Your task to perform on an android device: Show the shopping cart on amazon. Add jbl flip 4 to the cart on amazon Image 0: 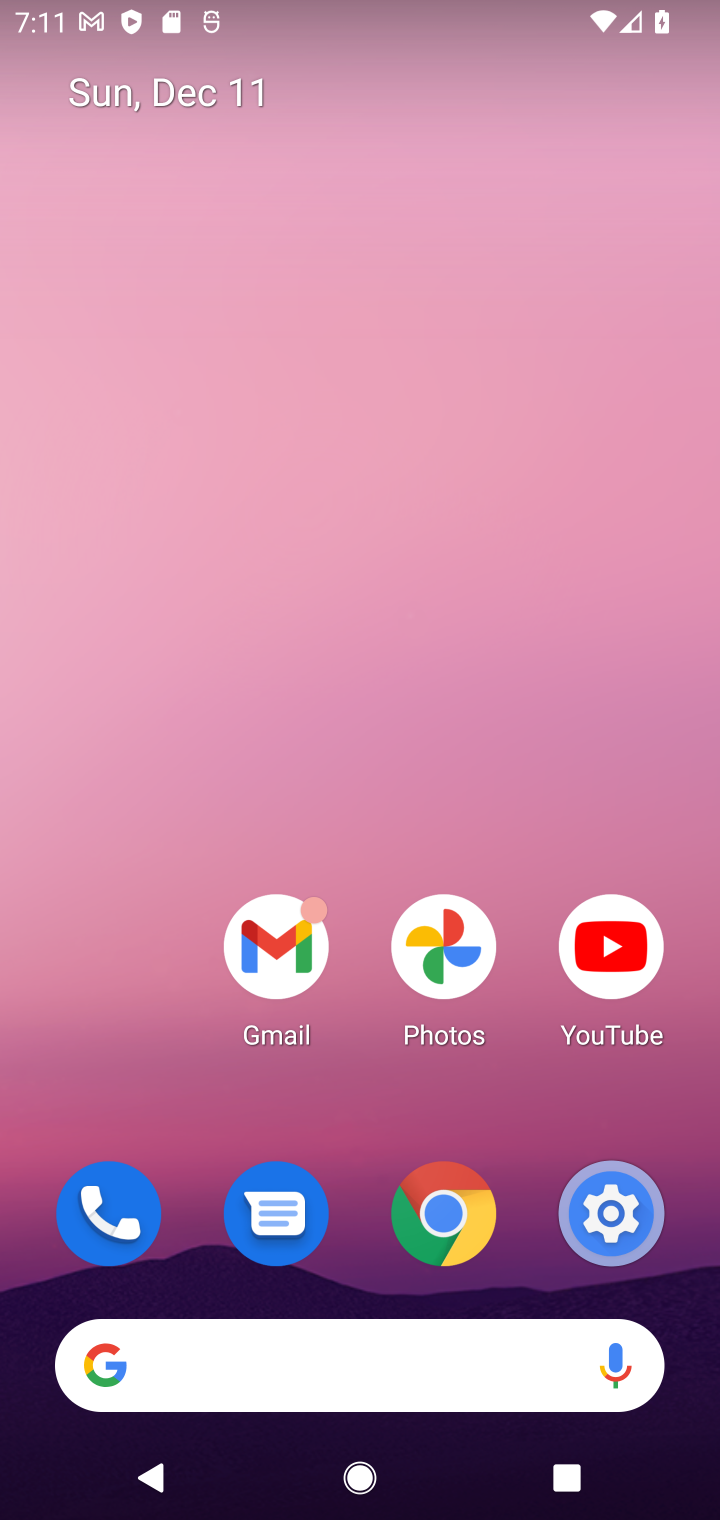
Step 0: click (268, 1357)
Your task to perform on an android device: Show the shopping cart on amazon. Add jbl flip 4 to the cart on amazon Image 1: 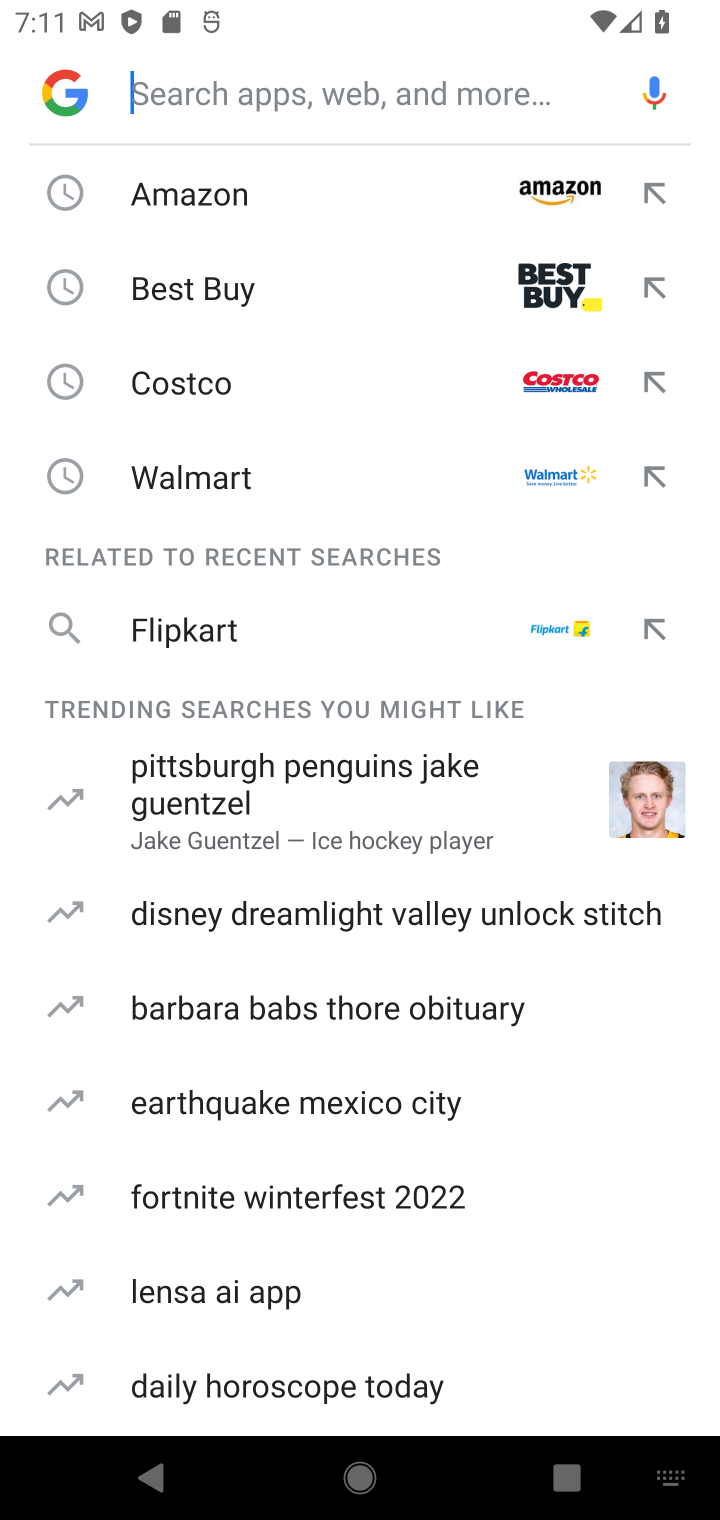
Step 1: type "jbl flip 4"
Your task to perform on an android device: Show the shopping cart on amazon. Add jbl flip 4 to the cart on amazon Image 2: 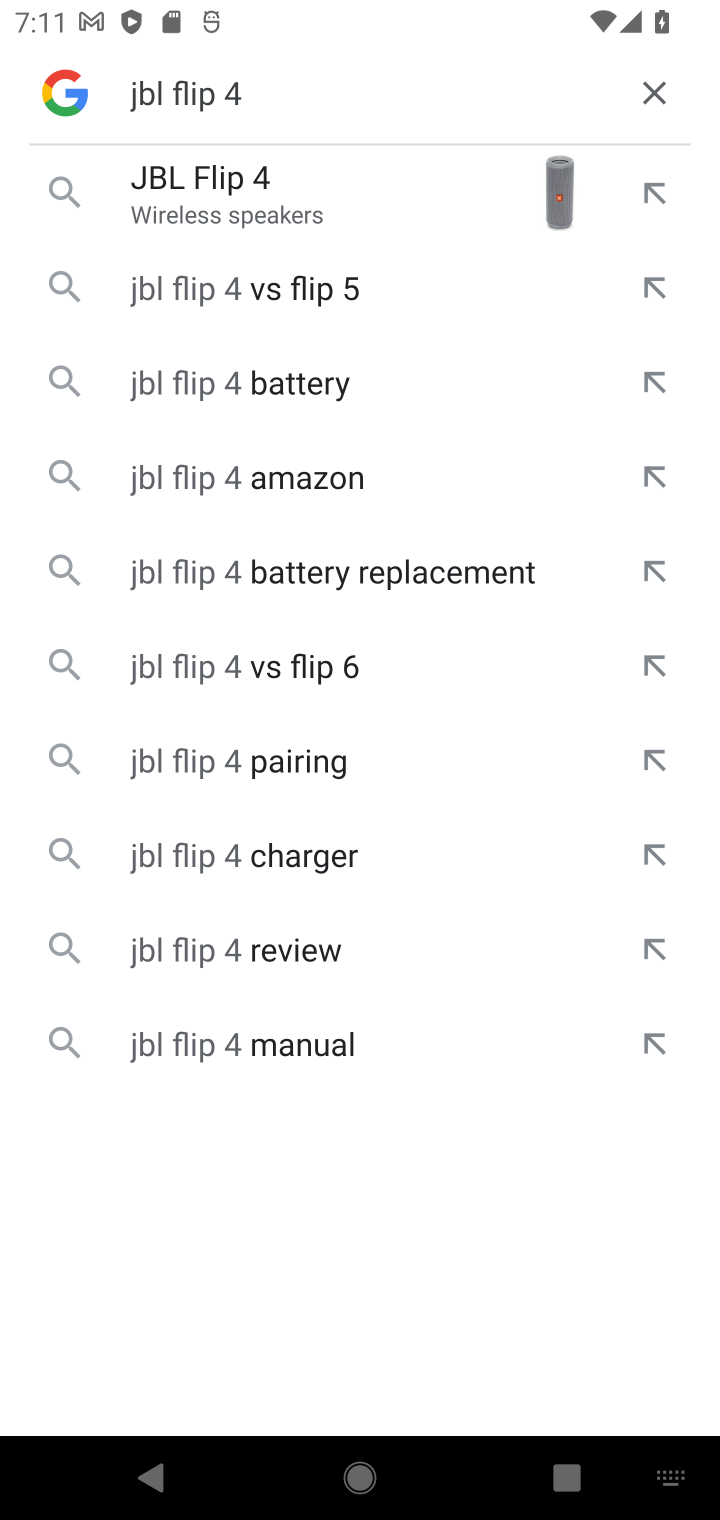
Step 2: press home button
Your task to perform on an android device: Show the shopping cart on amazon. Add jbl flip 4 to the cart on amazon Image 3: 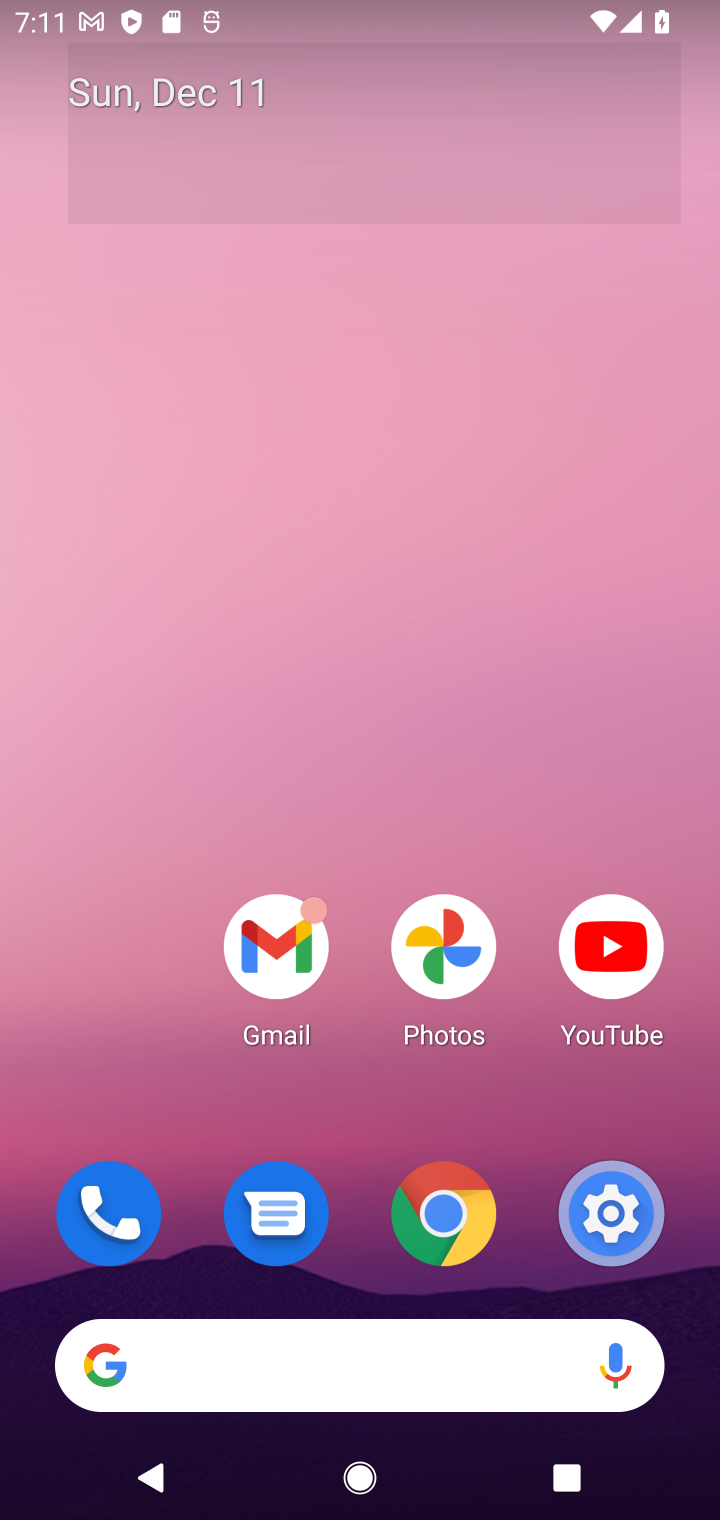
Step 3: click (310, 1346)
Your task to perform on an android device: Show the shopping cart on amazon. Add jbl flip 4 to the cart on amazon Image 4: 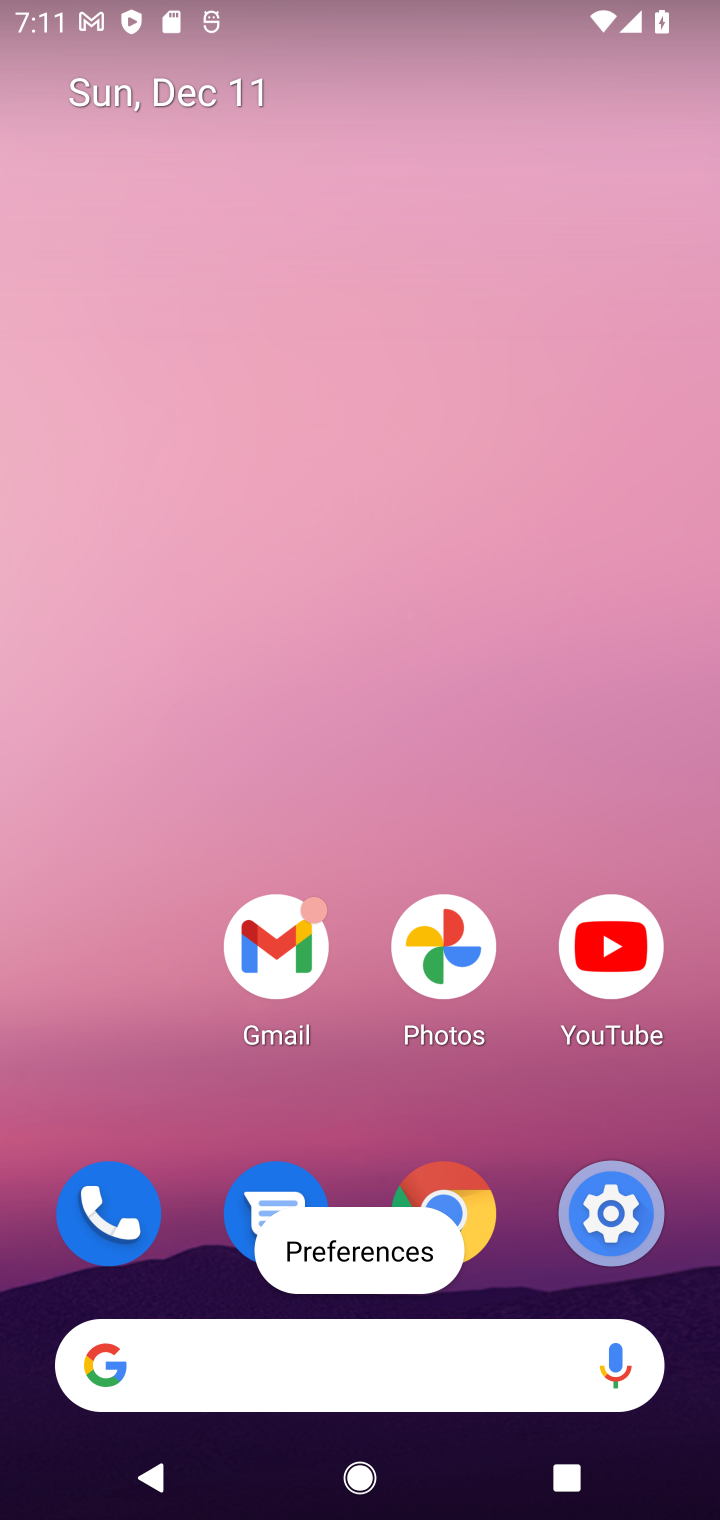
Step 4: click (455, 1358)
Your task to perform on an android device: Show the shopping cart on amazon. Add jbl flip 4 to the cart on amazon Image 5: 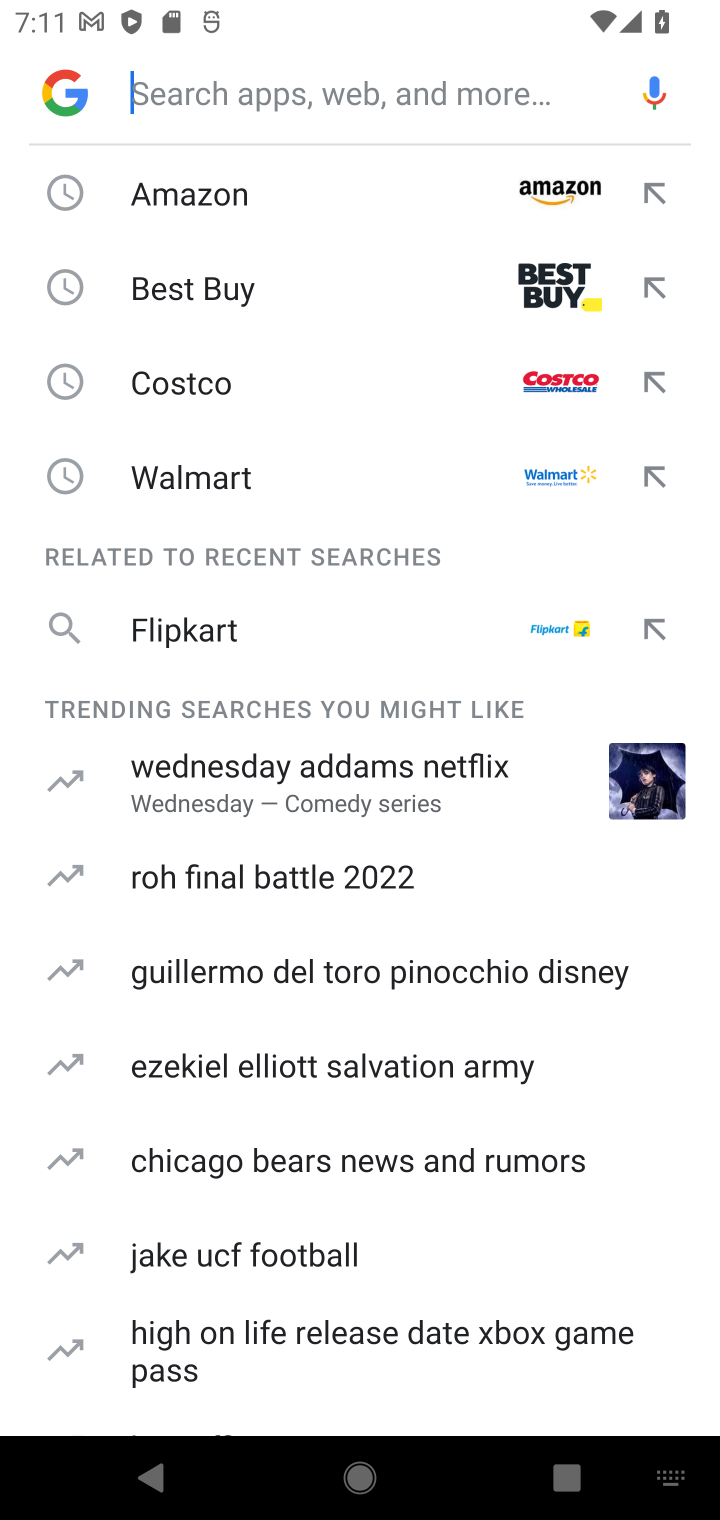
Step 5: click (296, 204)
Your task to perform on an android device: Show the shopping cart on amazon. Add jbl flip 4 to the cart on amazon Image 6: 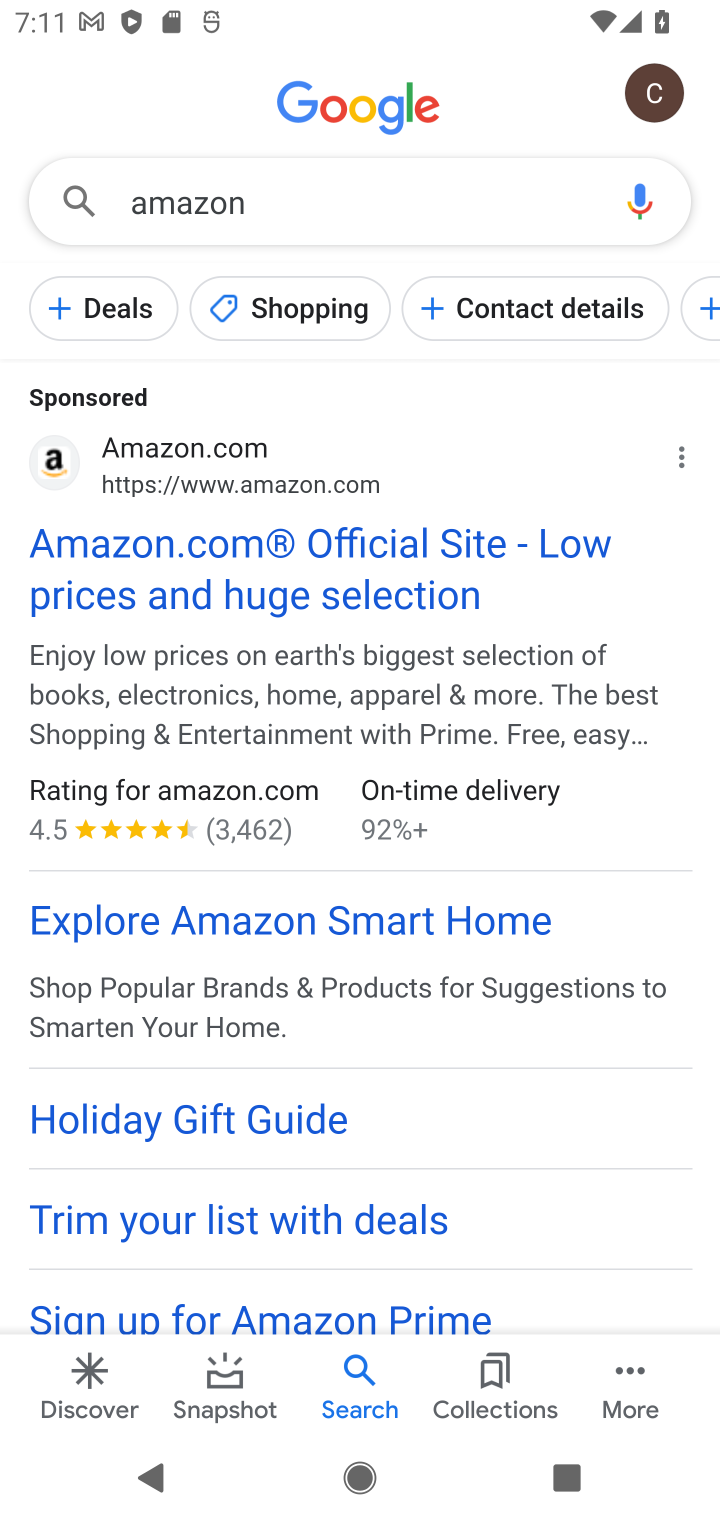
Step 6: click (235, 545)
Your task to perform on an android device: Show the shopping cart on amazon. Add jbl flip 4 to the cart on amazon Image 7: 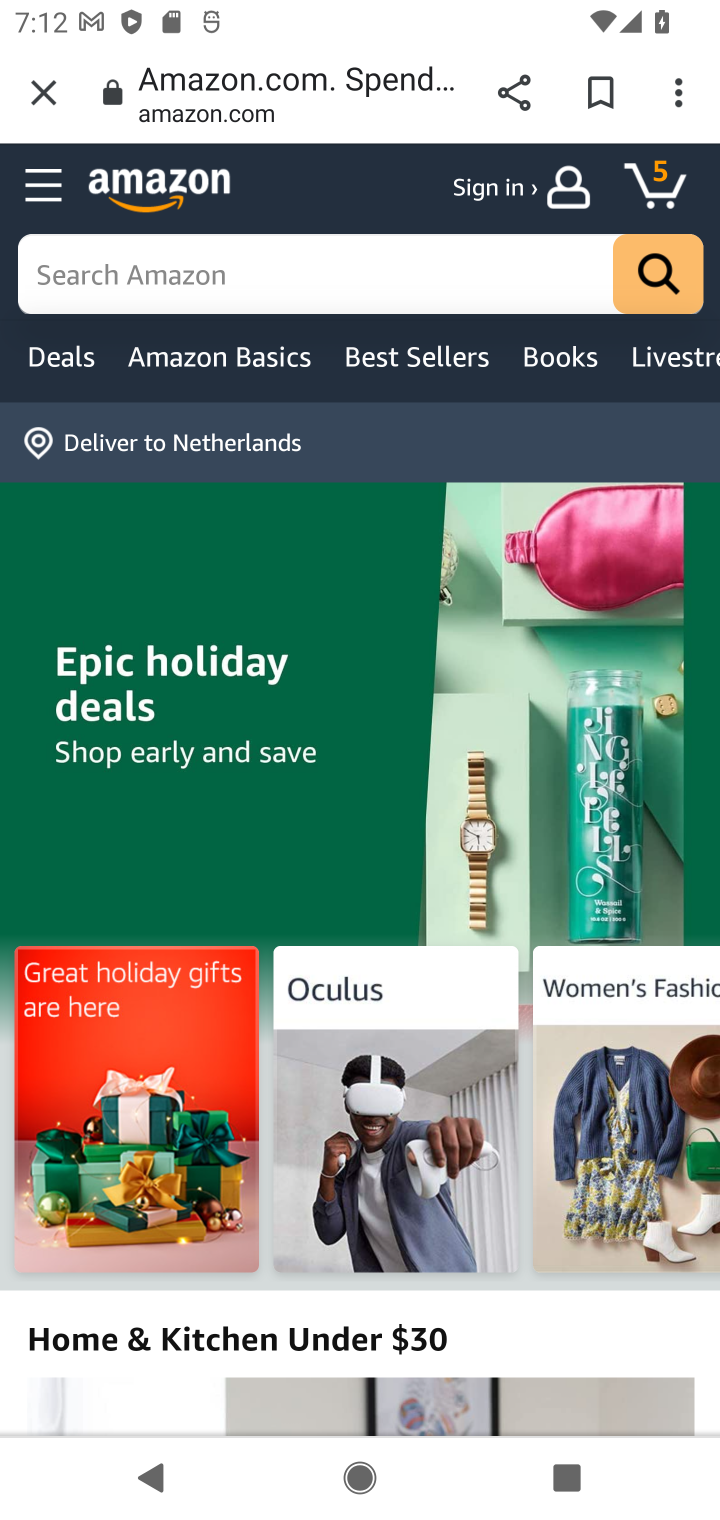
Step 7: click (375, 272)
Your task to perform on an android device: Show the shopping cart on amazon. Add jbl flip 4 to the cart on amazon Image 8: 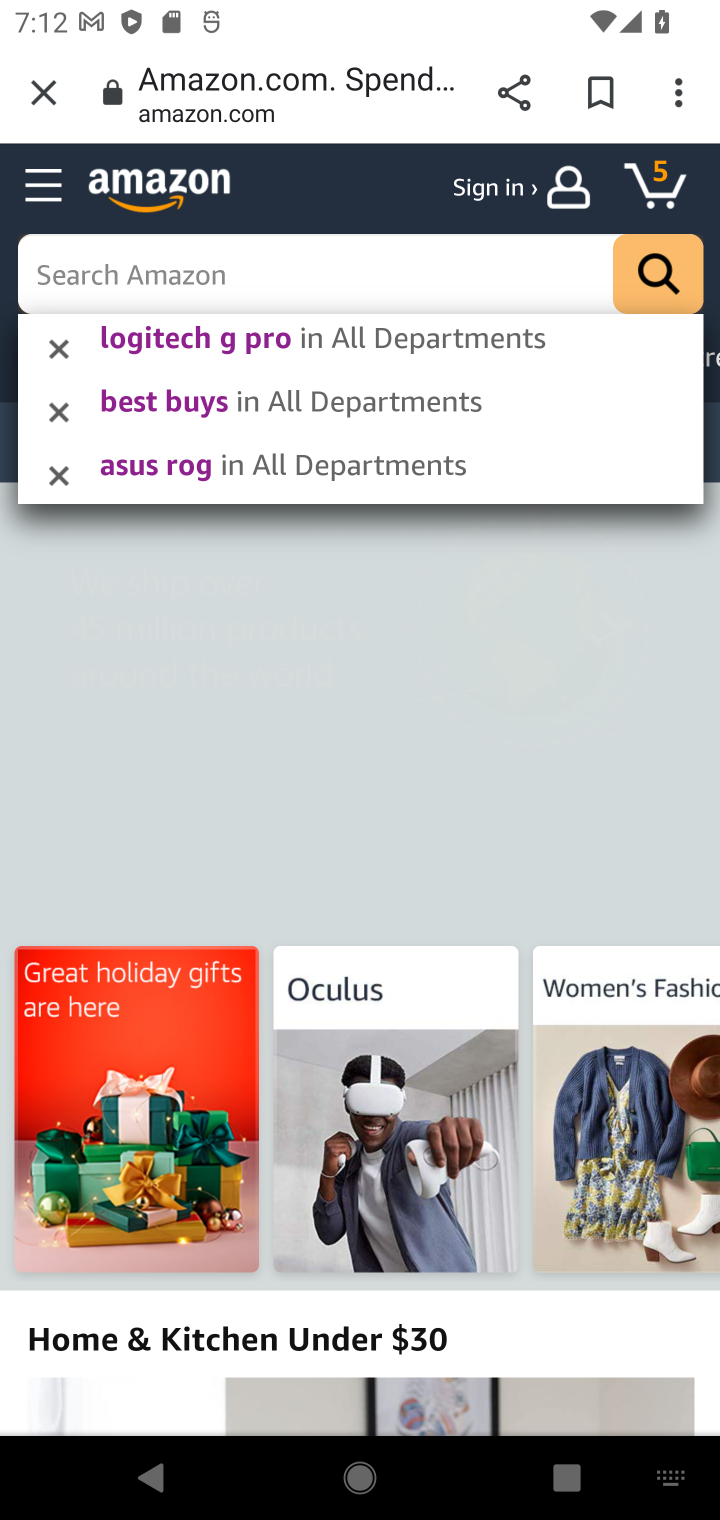
Step 8: type "jbl flip 4"
Your task to perform on an android device: Show the shopping cart on amazon. Add jbl flip 4 to the cart on amazon Image 9: 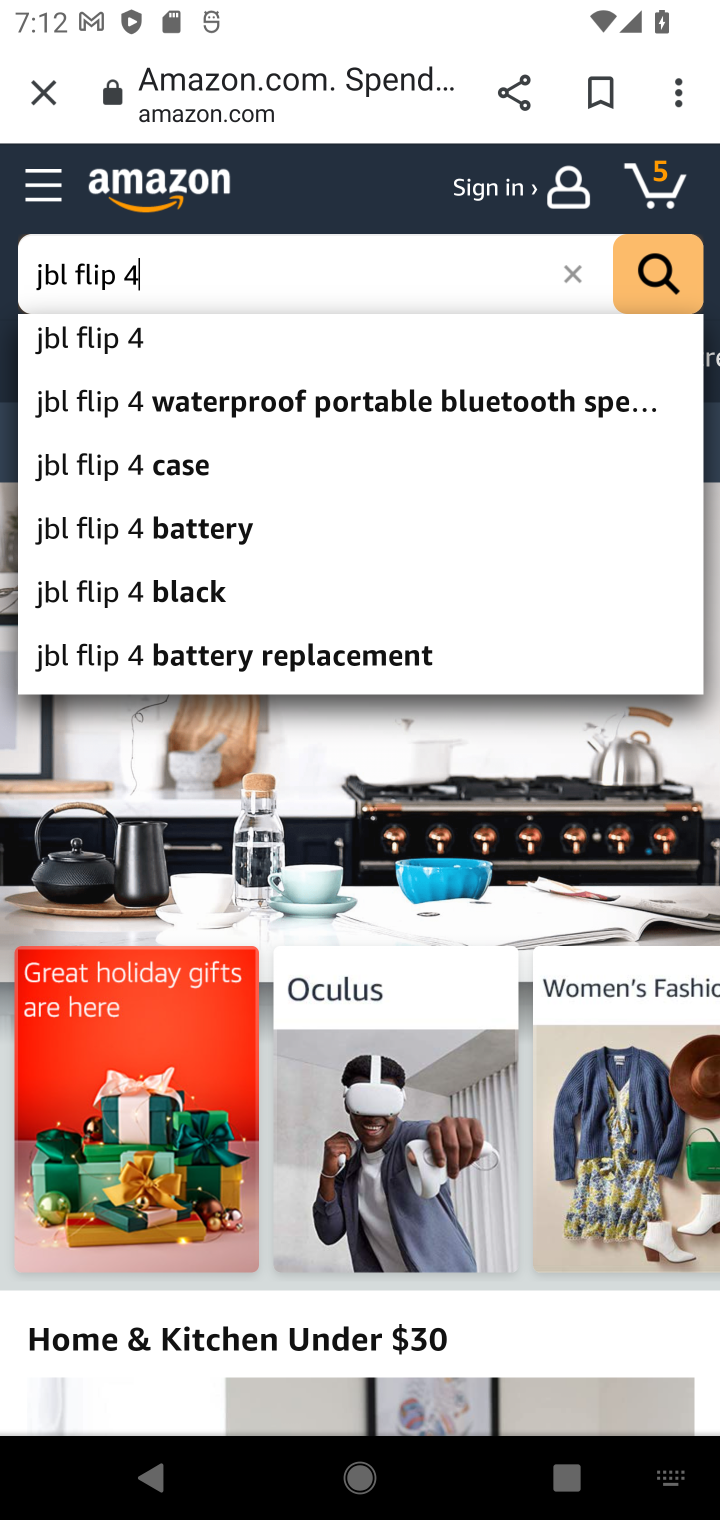
Step 9: click (659, 292)
Your task to perform on an android device: Show the shopping cart on amazon. Add jbl flip 4 to the cart on amazon Image 10: 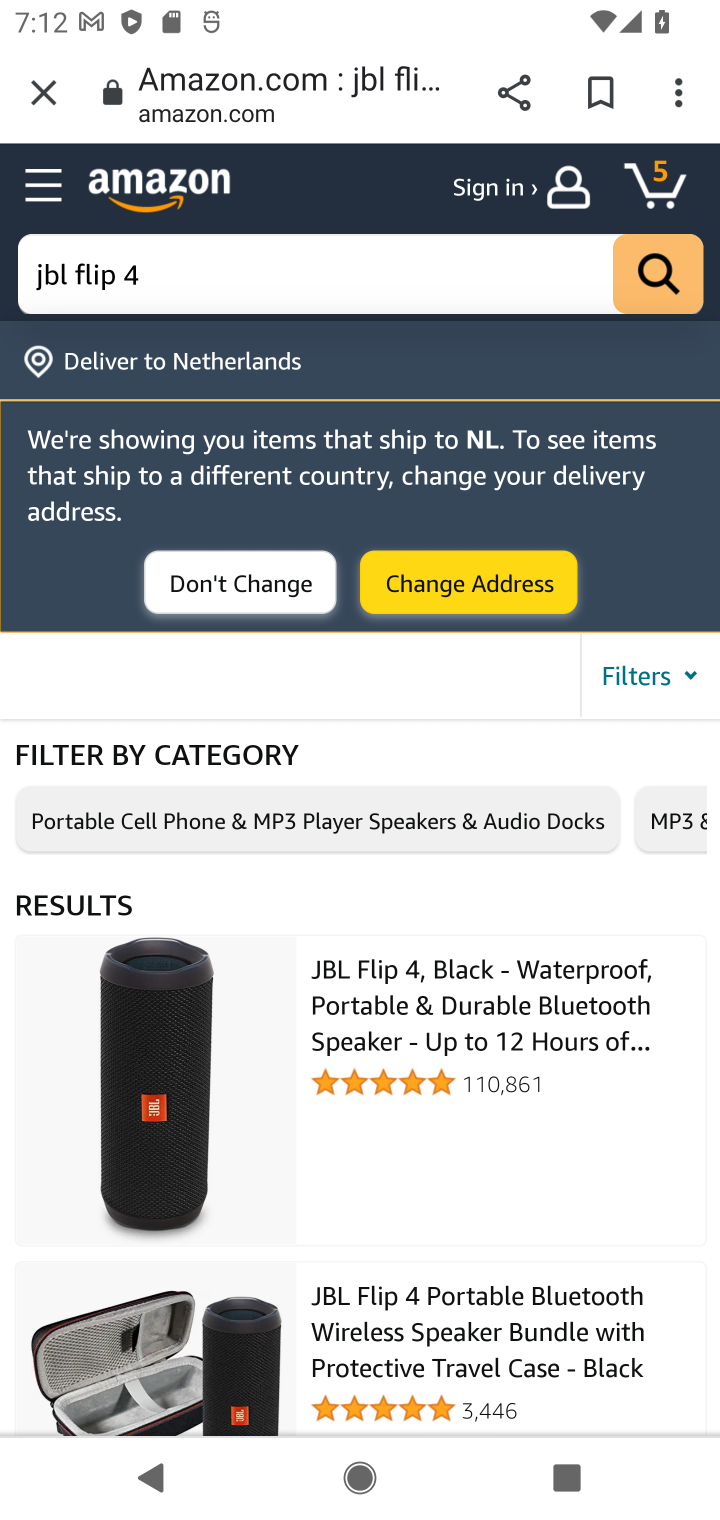
Step 10: click (461, 961)
Your task to perform on an android device: Show the shopping cart on amazon. Add jbl flip 4 to the cart on amazon Image 11: 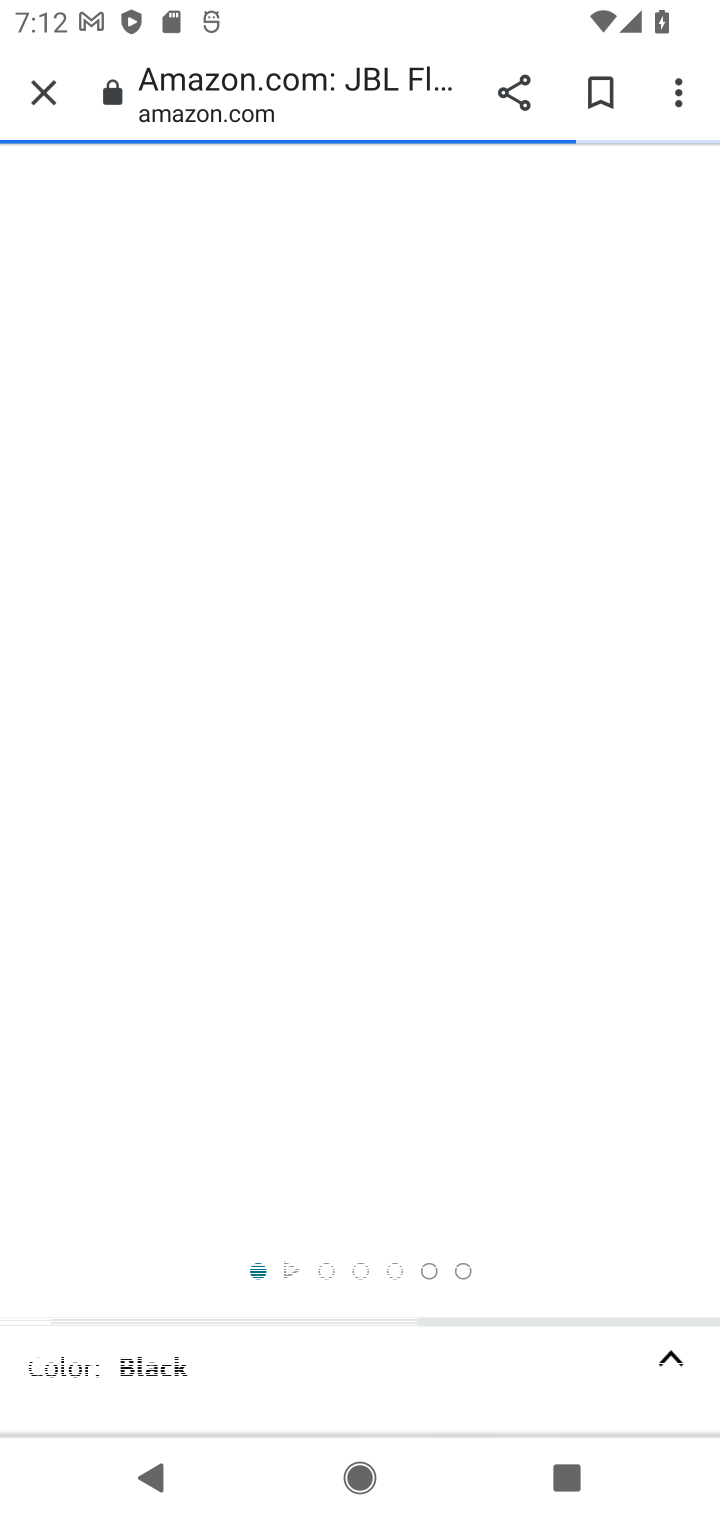
Step 11: drag from (539, 1142) to (390, 431)
Your task to perform on an android device: Show the shopping cart on amazon. Add jbl flip 4 to the cart on amazon Image 12: 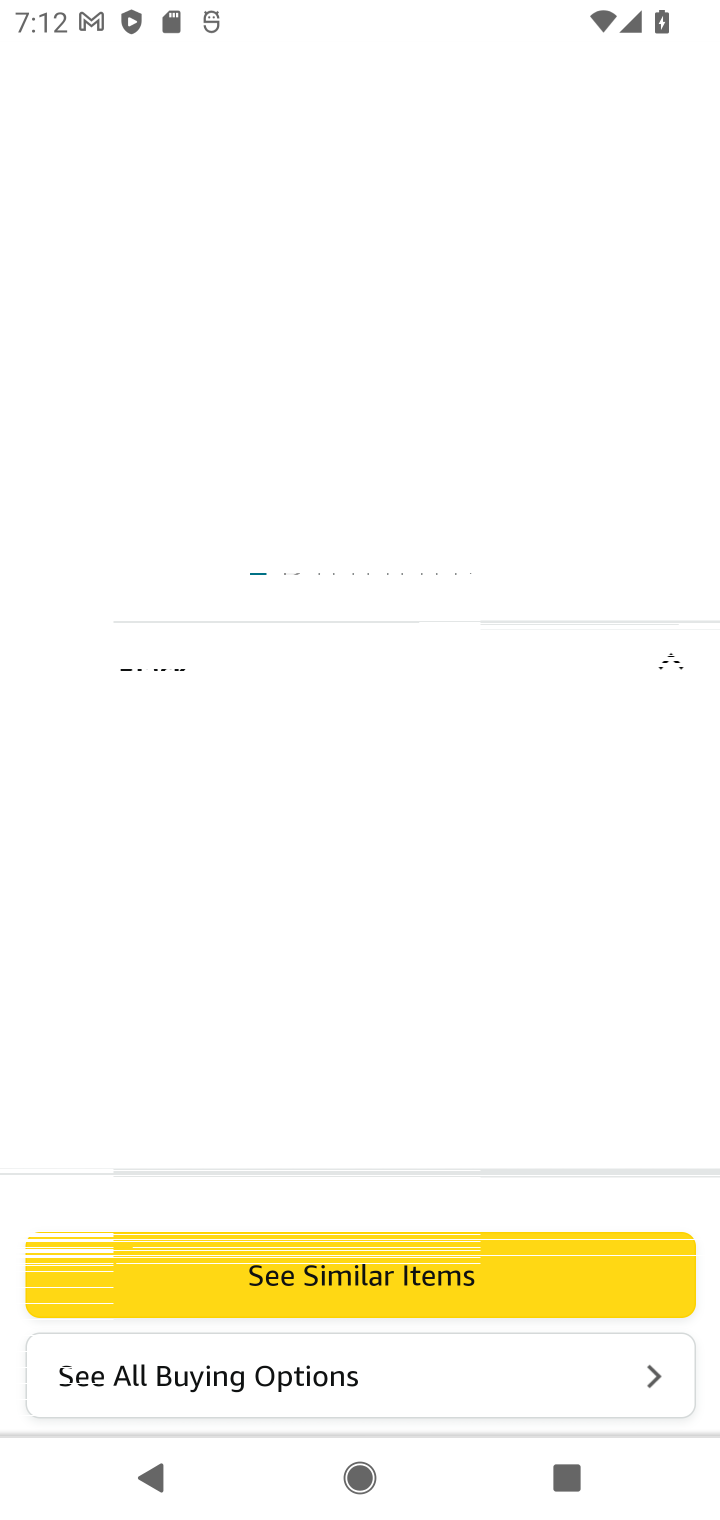
Step 12: click (509, 1262)
Your task to perform on an android device: Show the shopping cart on amazon. Add jbl flip 4 to the cart on amazon Image 13: 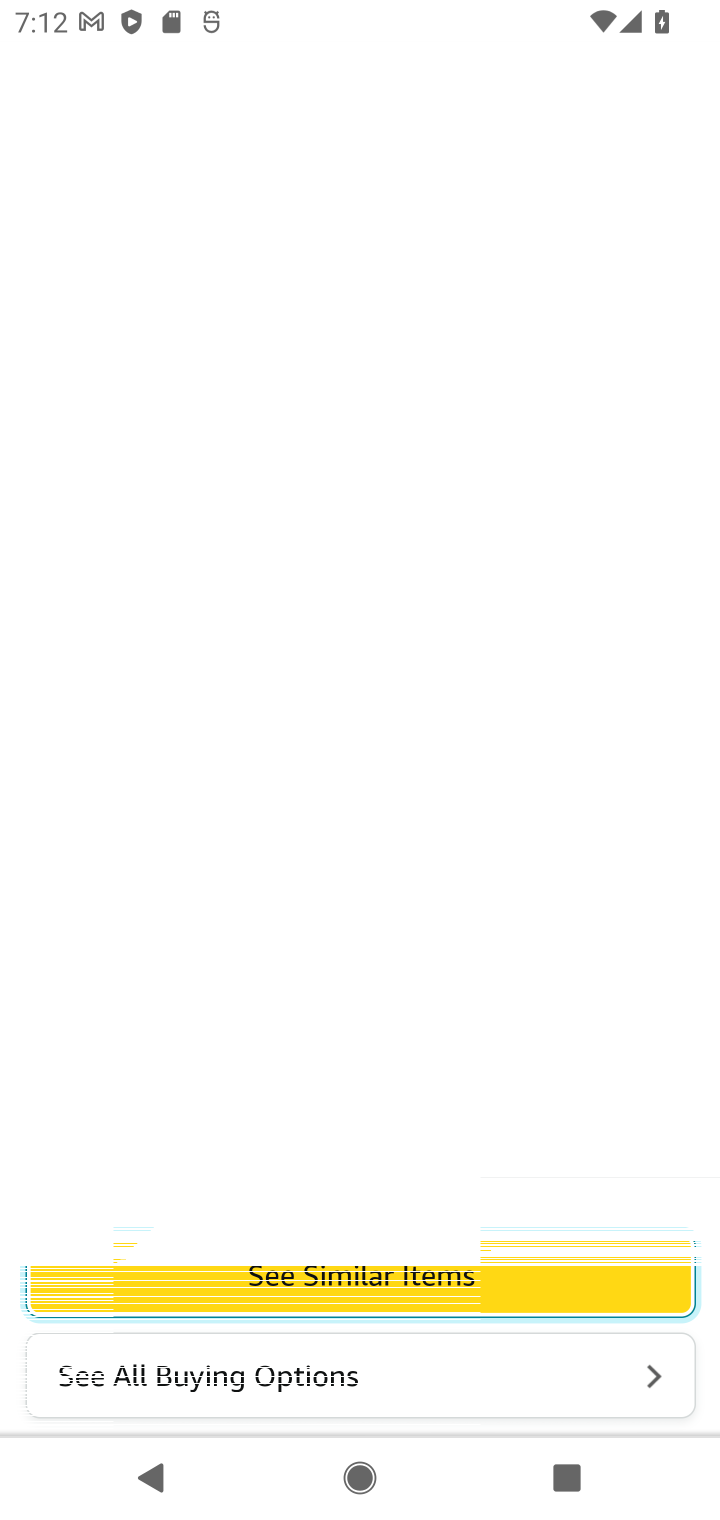
Step 13: task complete